Your task to perform on an android device: Open internet settings Image 0: 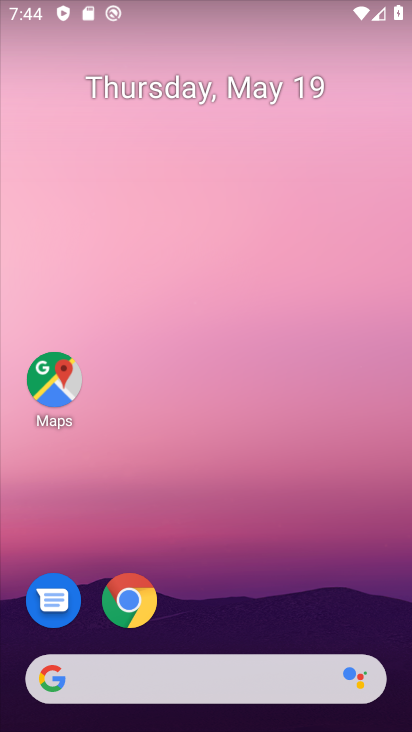
Step 0: drag from (269, 627) to (259, 15)
Your task to perform on an android device: Open internet settings Image 1: 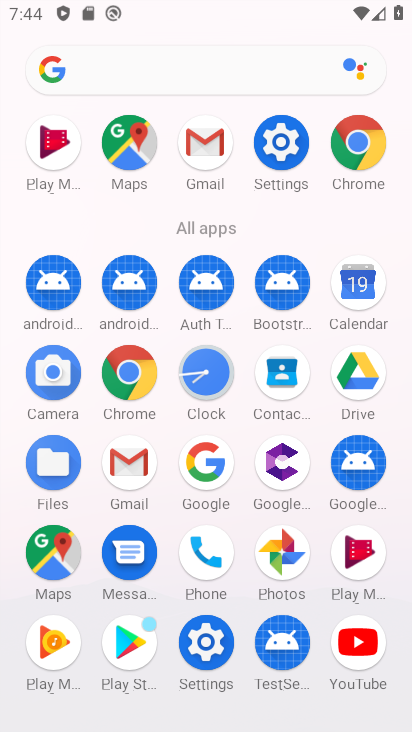
Step 1: click (276, 129)
Your task to perform on an android device: Open internet settings Image 2: 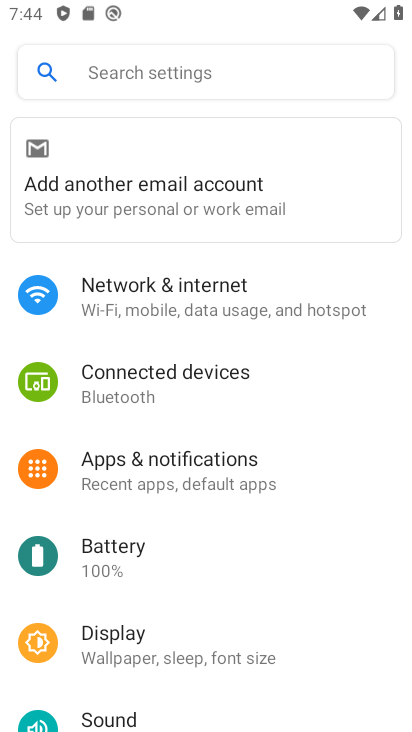
Step 2: click (158, 280)
Your task to perform on an android device: Open internet settings Image 3: 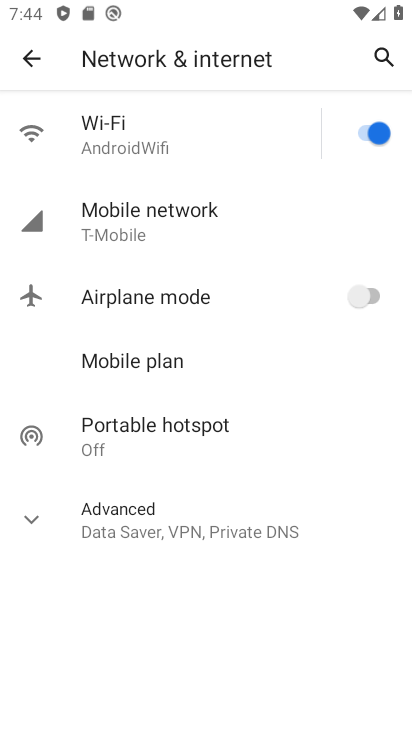
Step 3: task complete